Your task to perform on an android device: install app "DuckDuckGo Privacy Browser" Image 0: 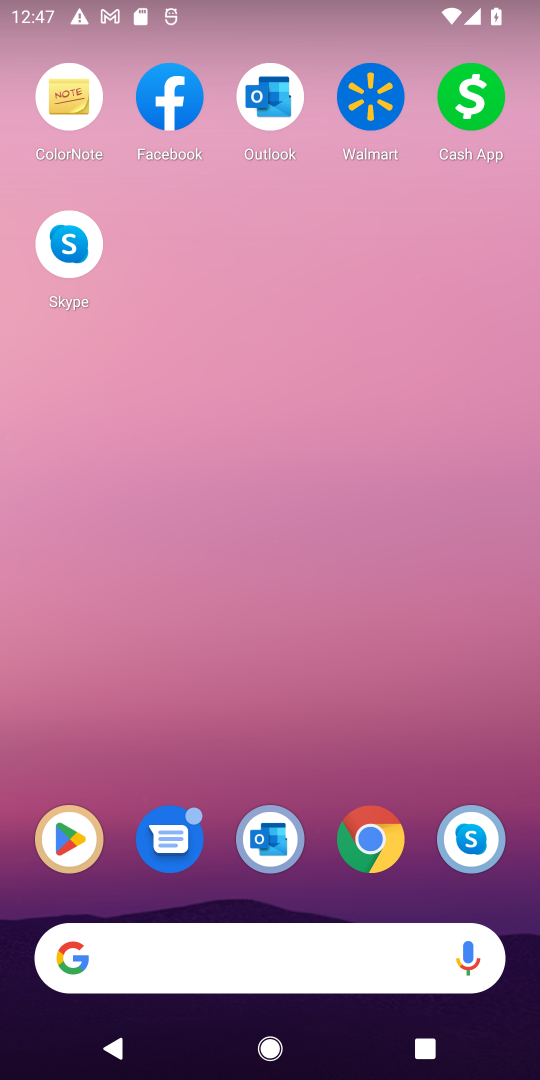
Step 0: click (53, 839)
Your task to perform on an android device: install app "DuckDuckGo Privacy Browser" Image 1: 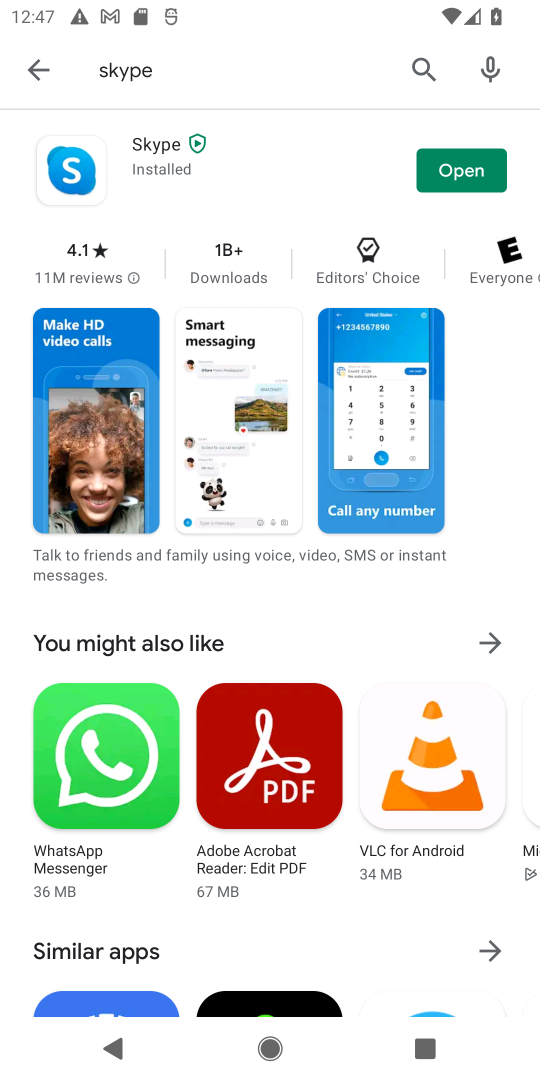
Step 1: click (411, 62)
Your task to perform on an android device: install app "DuckDuckGo Privacy Browser" Image 2: 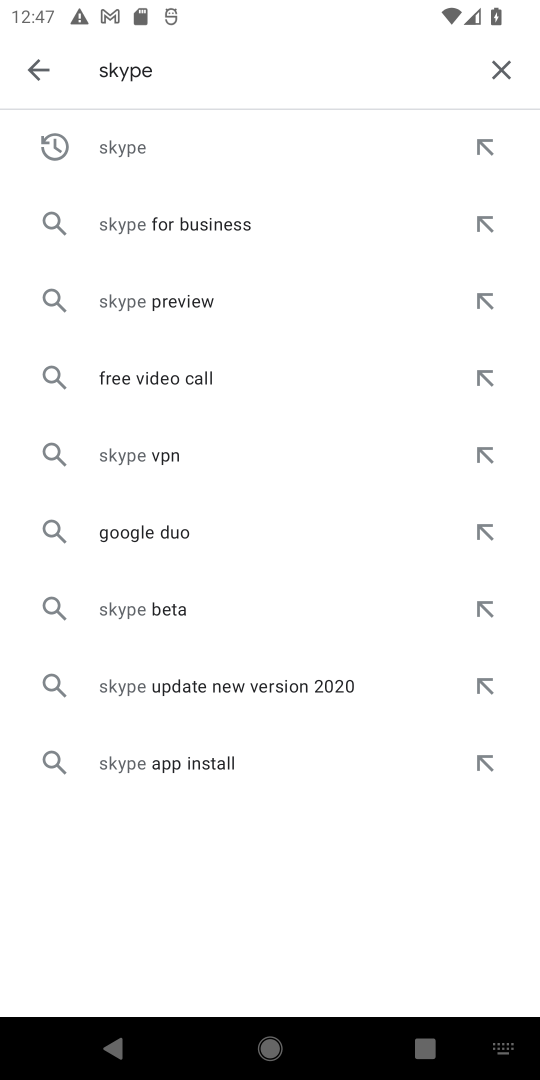
Step 2: click (497, 63)
Your task to perform on an android device: install app "DuckDuckGo Privacy Browser" Image 3: 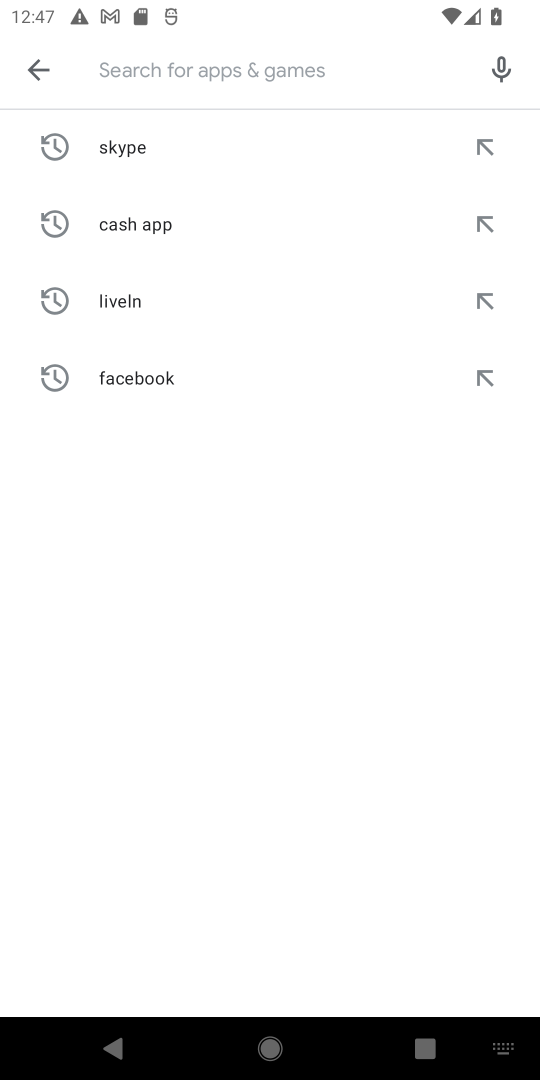
Step 3: click (344, 74)
Your task to perform on an android device: install app "DuckDuckGo Privacy Browser" Image 4: 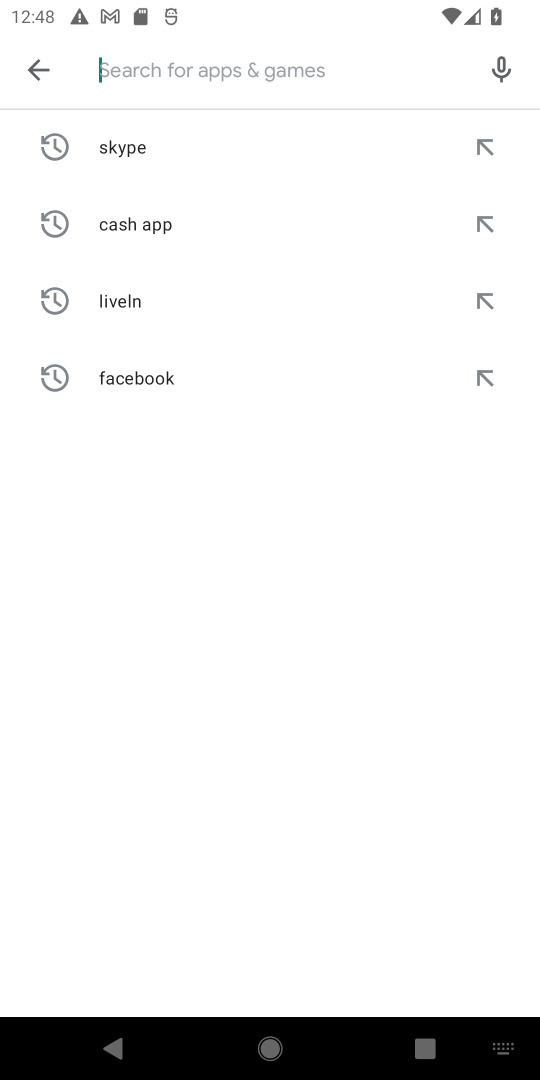
Step 4: type "duckduckgo"
Your task to perform on an android device: install app "DuckDuckGo Privacy Browser" Image 5: 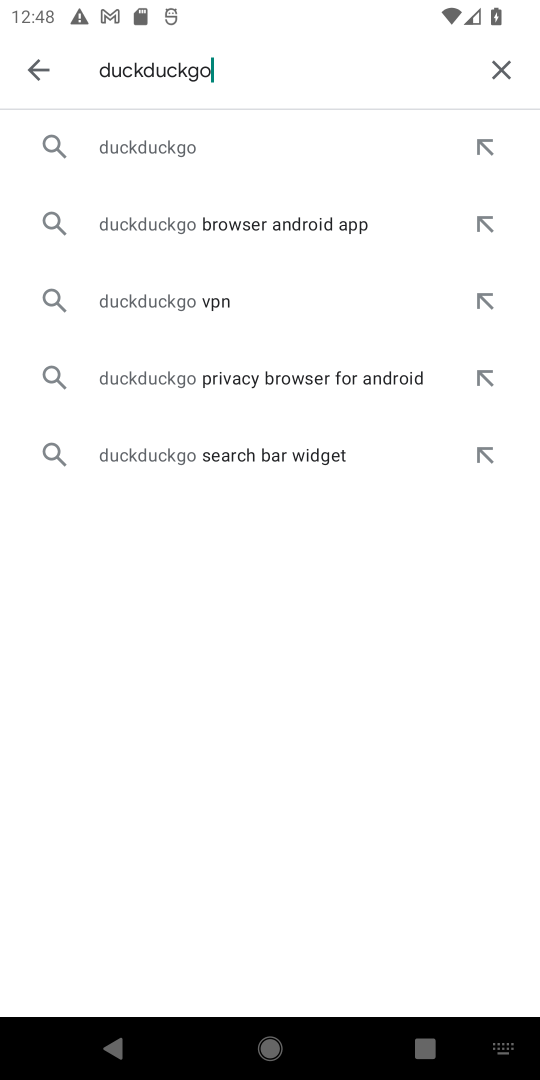
Step 5: click (212, 137)
Your task to perform on an android device: install app "DuckDuckGo Privacy Browser" Image 6: 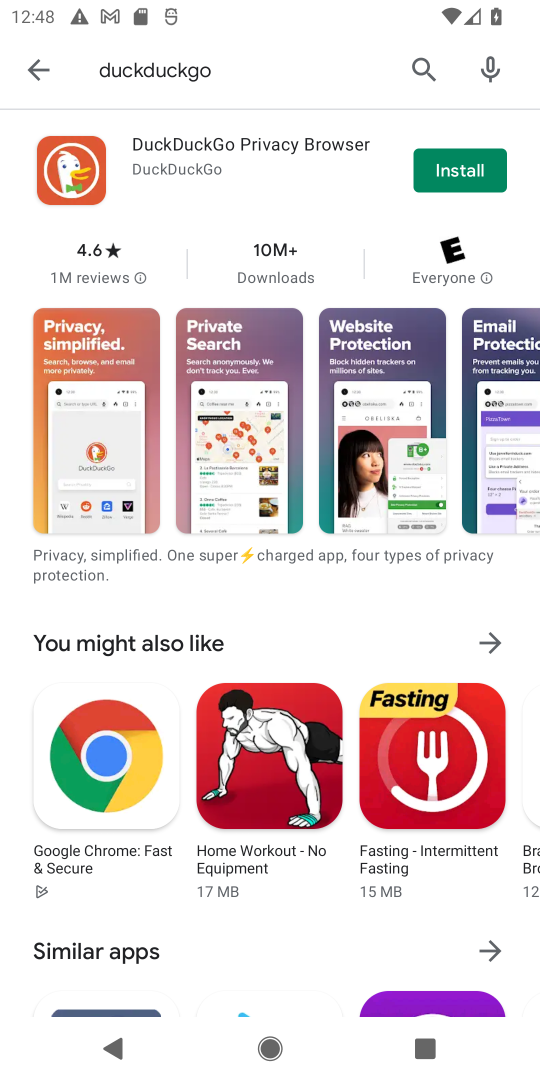
Step 6: click (429, 161)
Your task to perform on an android device: install app "DuckDuckGo Privacy Browser" Image 7: 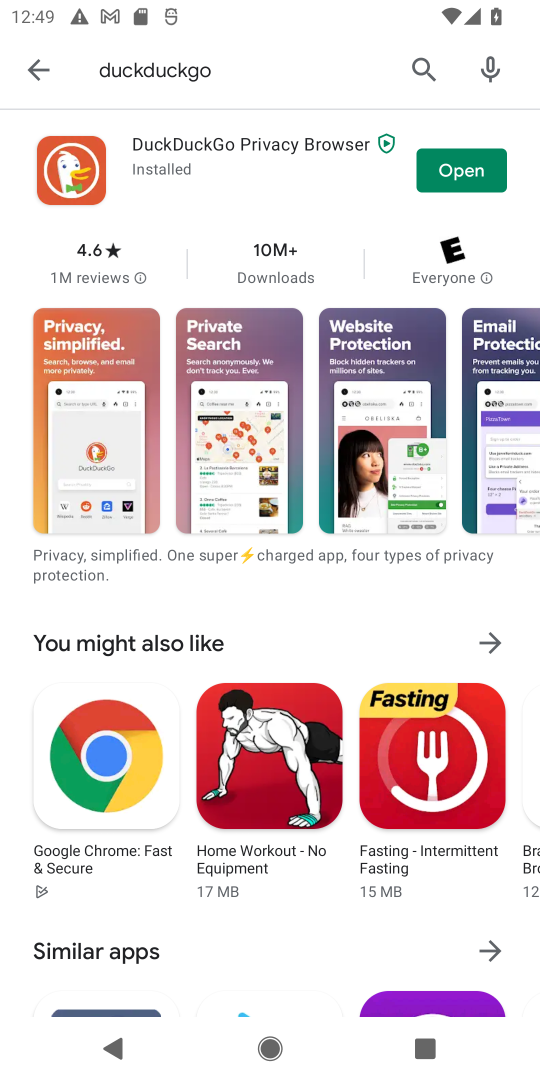
Step 7: task complete